Your task to perform on an android device: Do I have any events this weekend? Image 0: 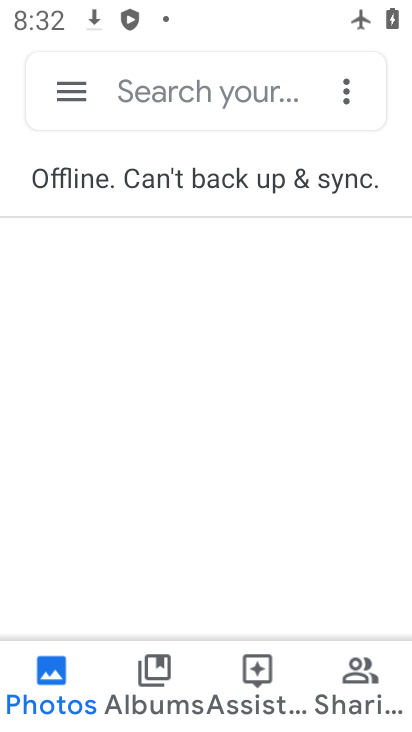
Step 0: press home button
Your task to perform on an android device: Do I have any events this weekend? Image 1: 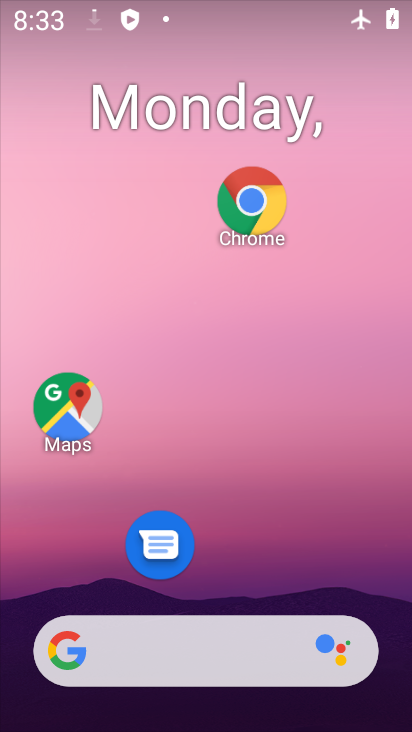
Step 1: drag from (224, 586) to (221, 275)
Your task to perform on an android device: Do I have any events this weekend? Image 2: 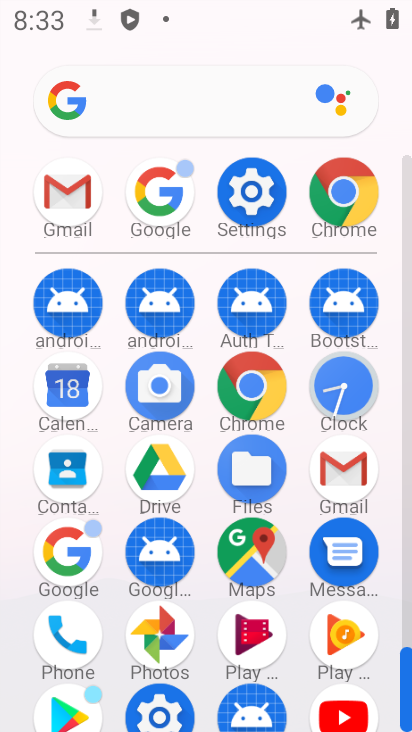
Step 2: click (88, 395)
Your task to perform on an android device: Do I have any events this weekend? Image 3: 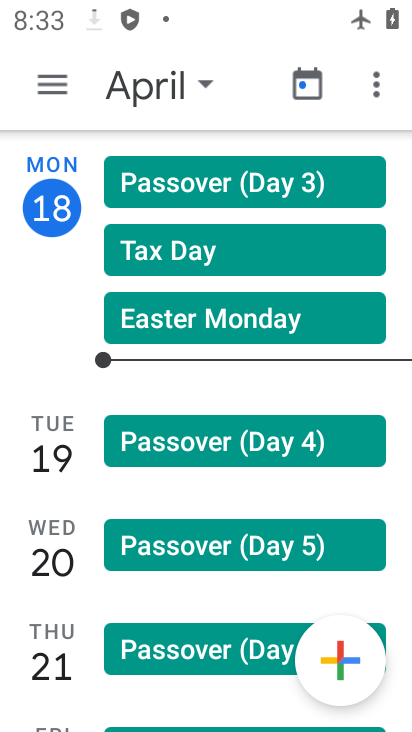
Step 3: click (200, 81)
Your task to perform on an android device: Do I have any events this weekend? Image 4: 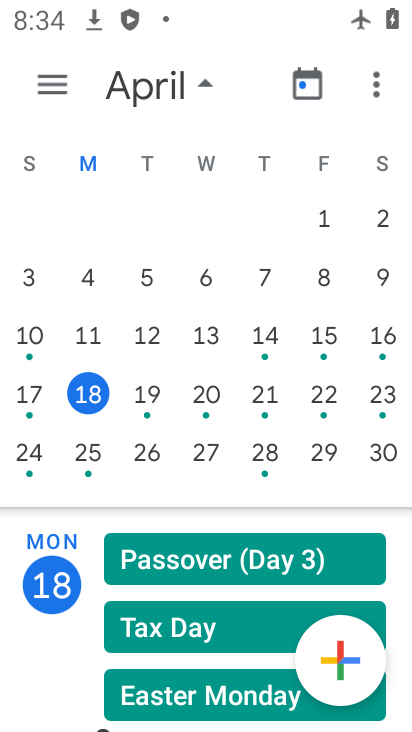
Step 4: click (321, 381)
Your task to perform on an android device: Do I have any events this weekend? Image 5: 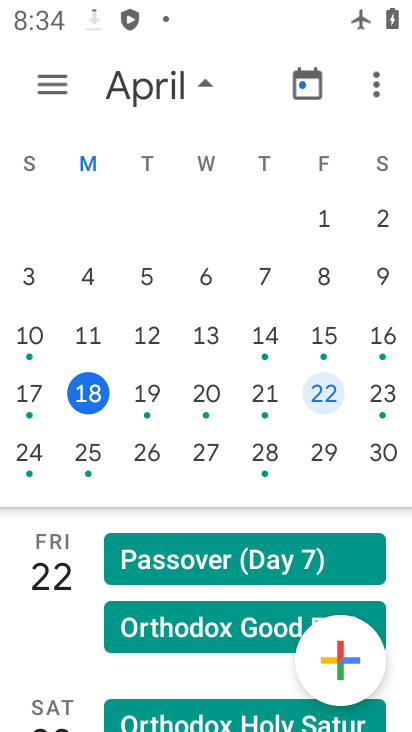
Step 5: click (366, 390)
Your task to perform on an android device: Do I have any events this weekend? Image 6: 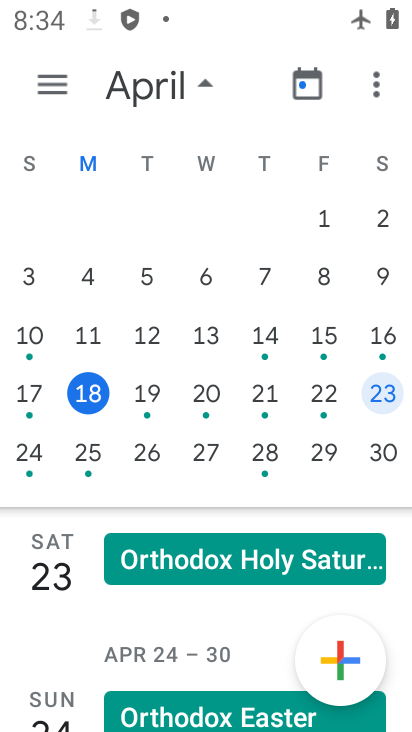
Step 6: click (241, 569)
Your task to perform on an android device: Do I have any events this weekend? Image 7: 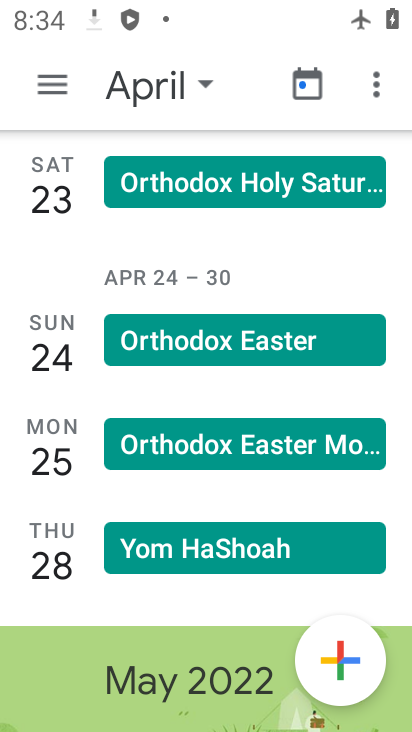
Step 7: task complete